Your task to perform on an android device: open app "ZOOM Cloud Meetings" (install if not already installed) Image 0: 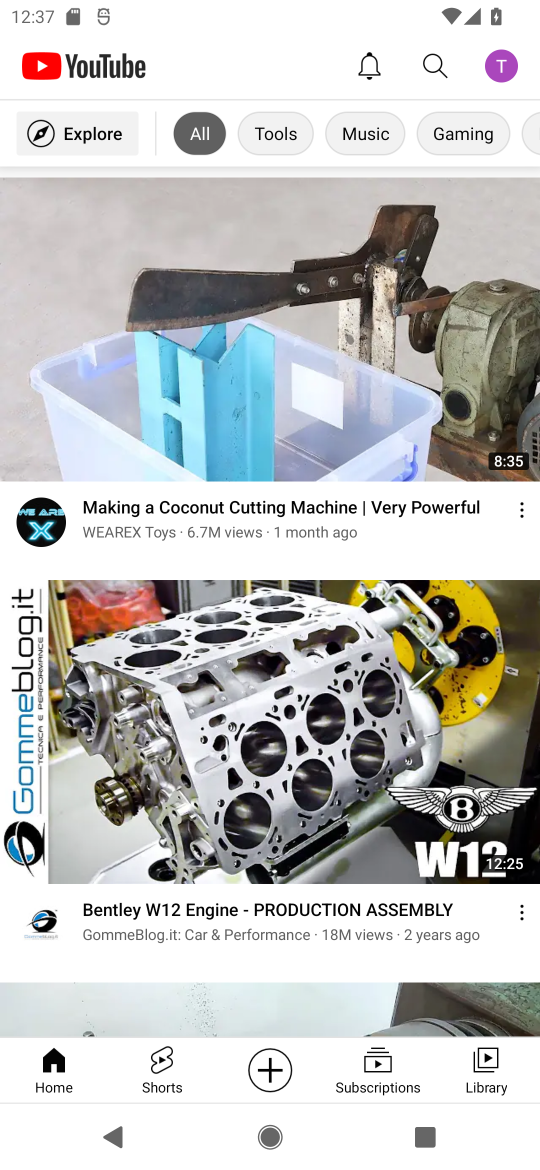
Step 0: press home button
Your task to perform on an android device: open app "ZOOM Cloud Meetings" (install if not already installed) Image 1: 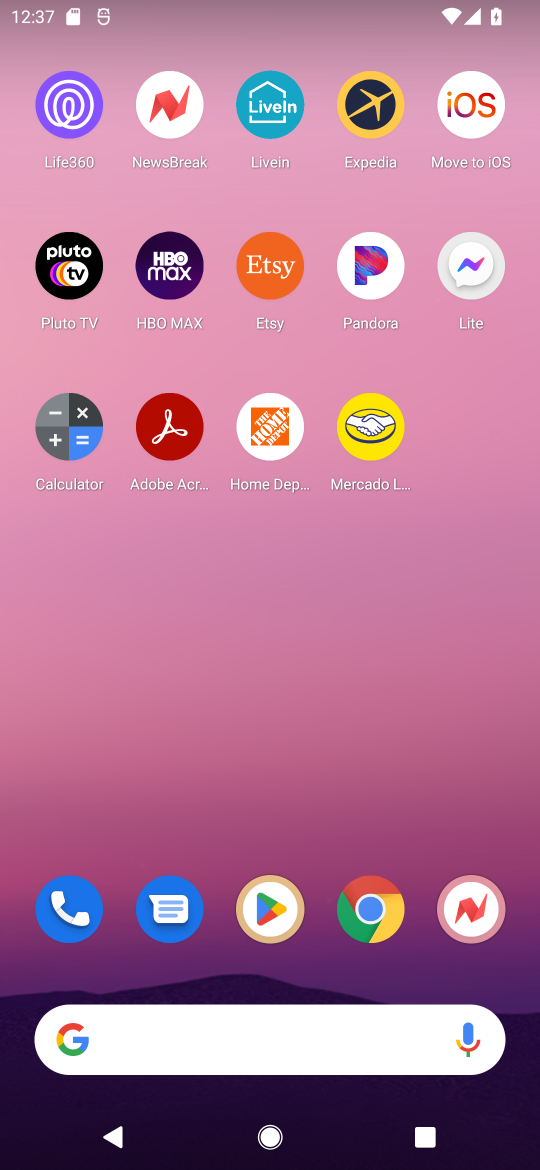
Step 1: click (282, 904)
Your task to perform on an android device: open app "ZOOM Cloud Meetings" (install if not already installed) Image 2: 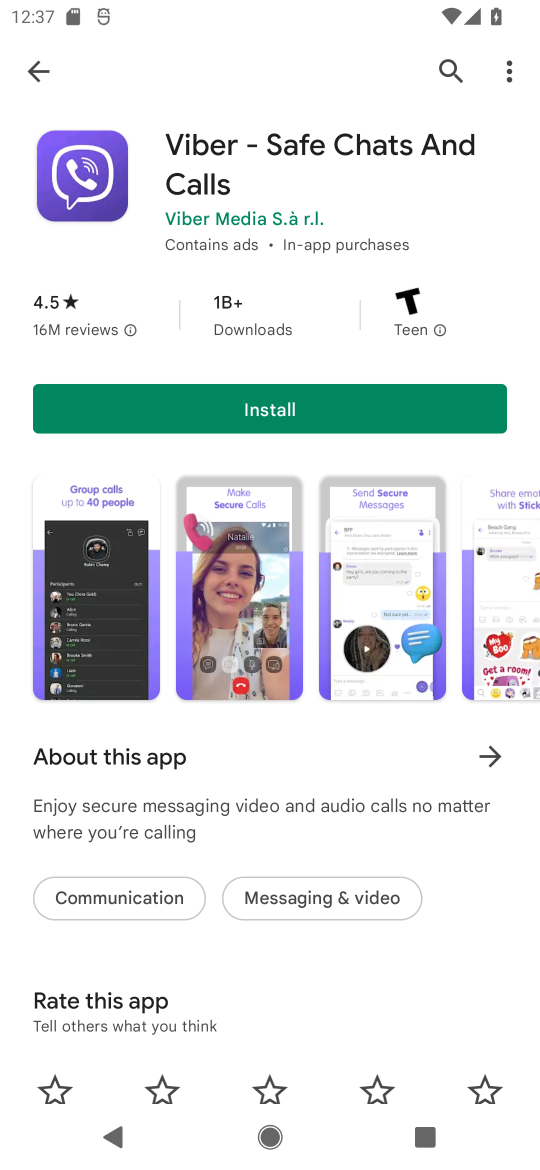
Step 2: click (436, 66)
Your task to perform on an android device: open app "ZOOM Cloud Meetings" (install if not already installed) Image 3: 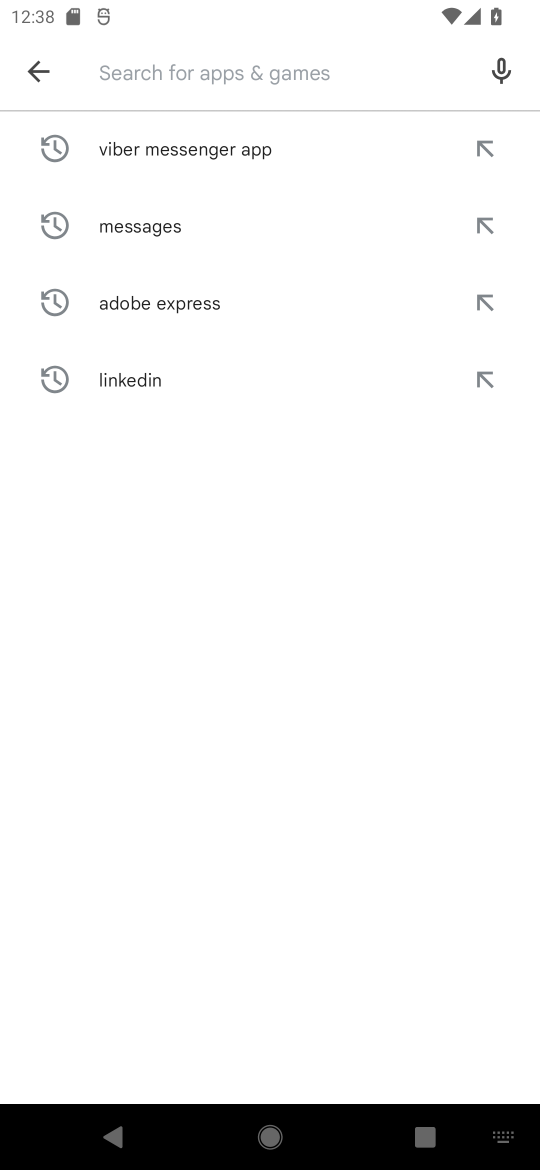
Step 3: type "zoom cloud"
Your task to perform on an android device: open app "ZOOM Cloud Meetings" (install if not already installed) Image 4: 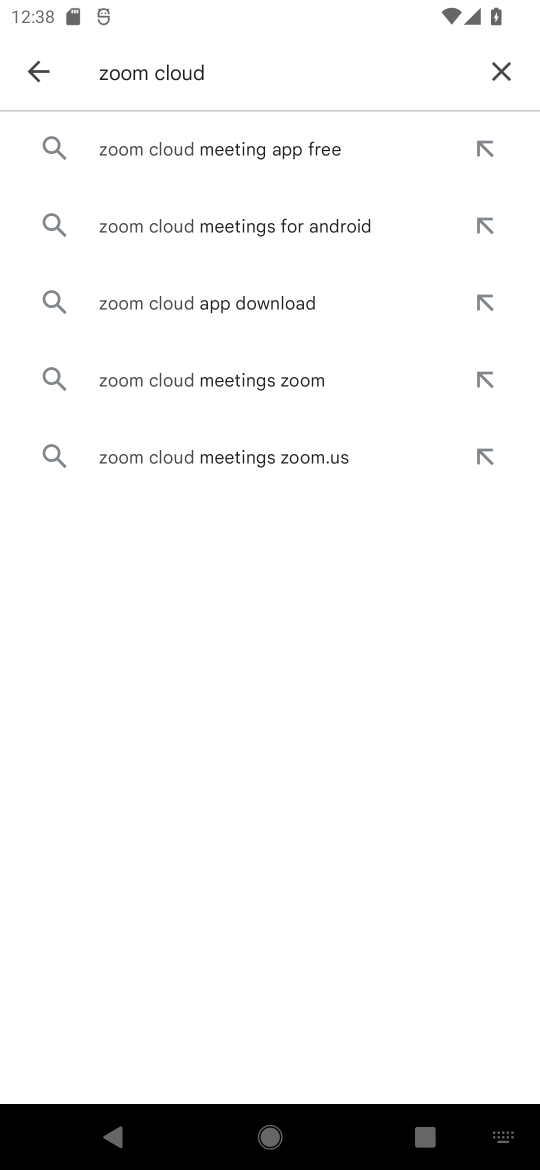
Step 4: click (235, 149)
Your task to perform on an android device: open app "ZOOM Cloud Meetings" (install if not already installed) Image 5: 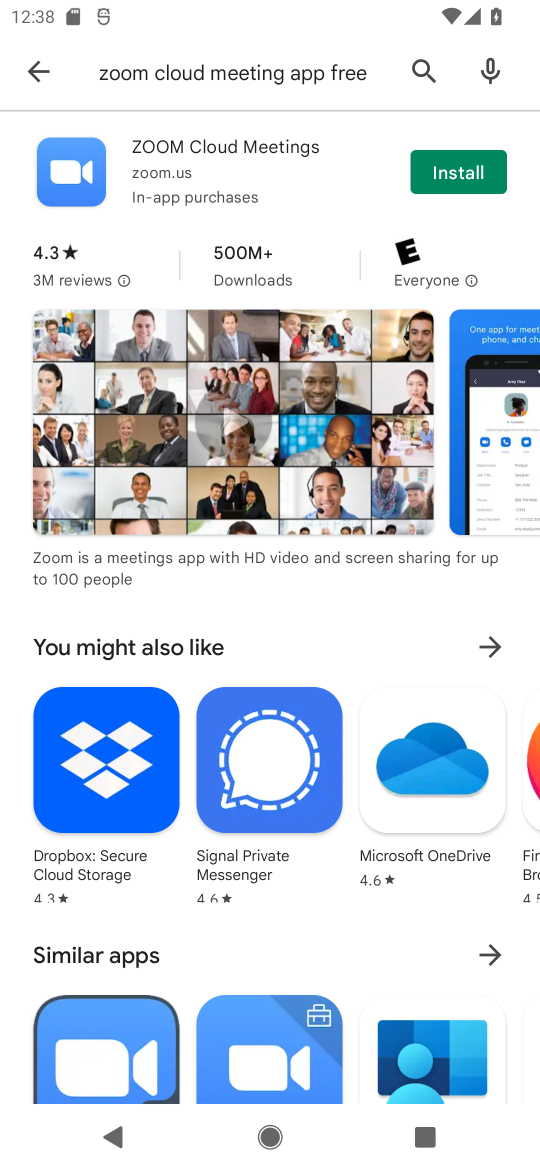
Step 5: click (445, 160)
Your task to perform on an android device: open app "ZOOM Cloud Meetings" (install if not already installed) Image 6: 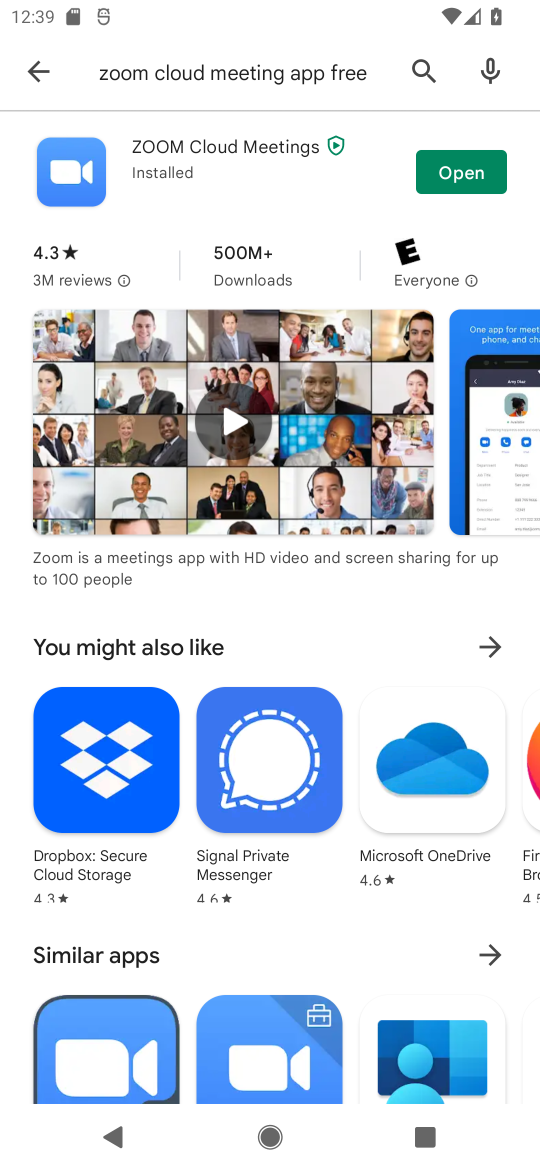
Step 6: click (442, 186)
Your task to perform on an android device: open app "ZOOM Cloud Meetings" (install if not already installed) Image 7: 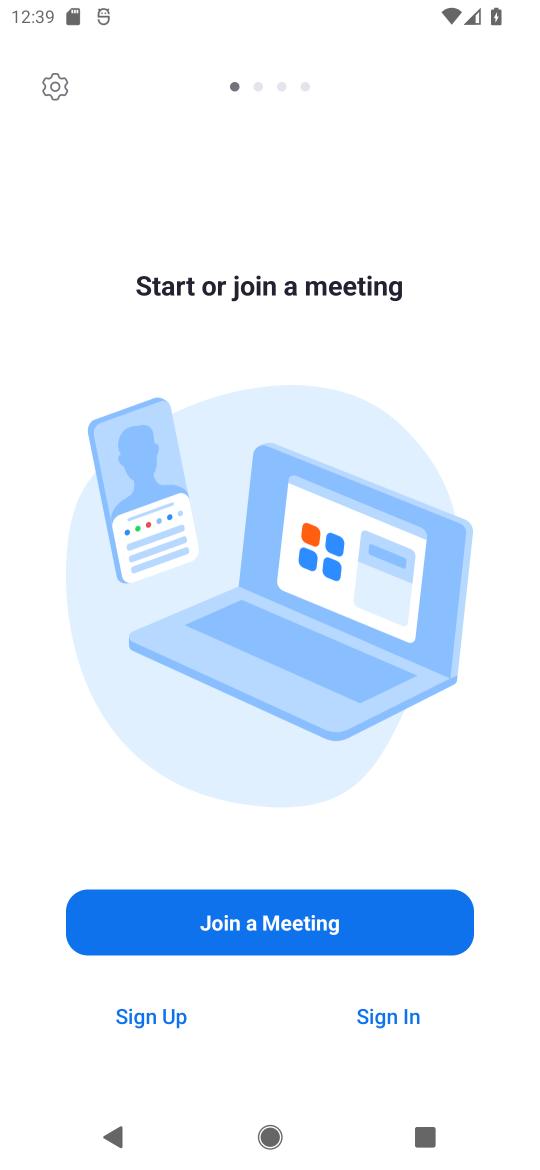
Step 7: task complete